Your task to perform on an android device: Add "razer blade" to the cart on walmart.com Image 0: 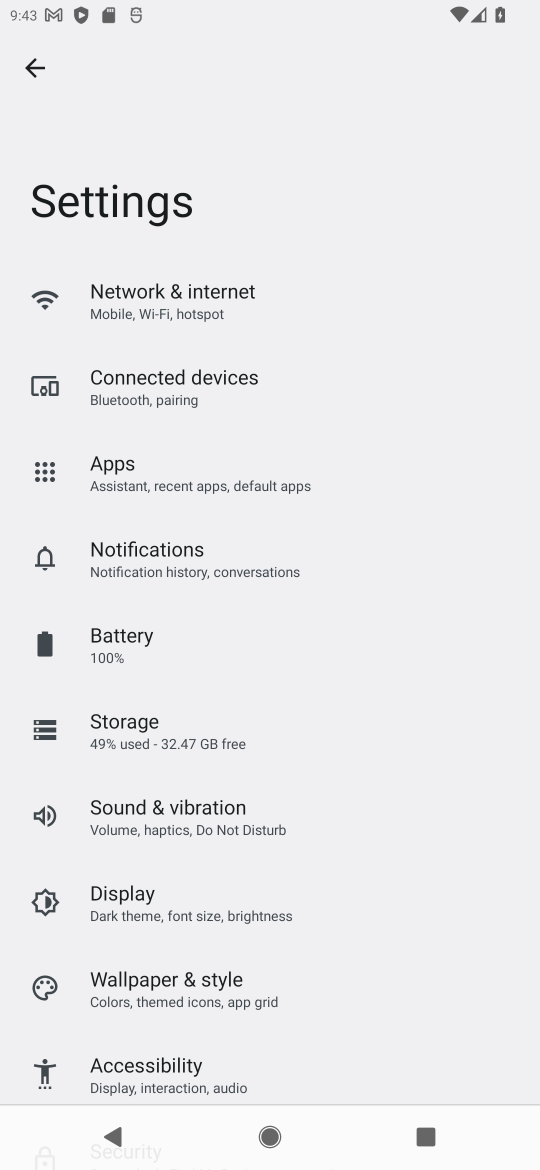
Step 0: press home button
Your task to perform on an android device: Add "razer blade" to the cart on walmart.com Image 1: 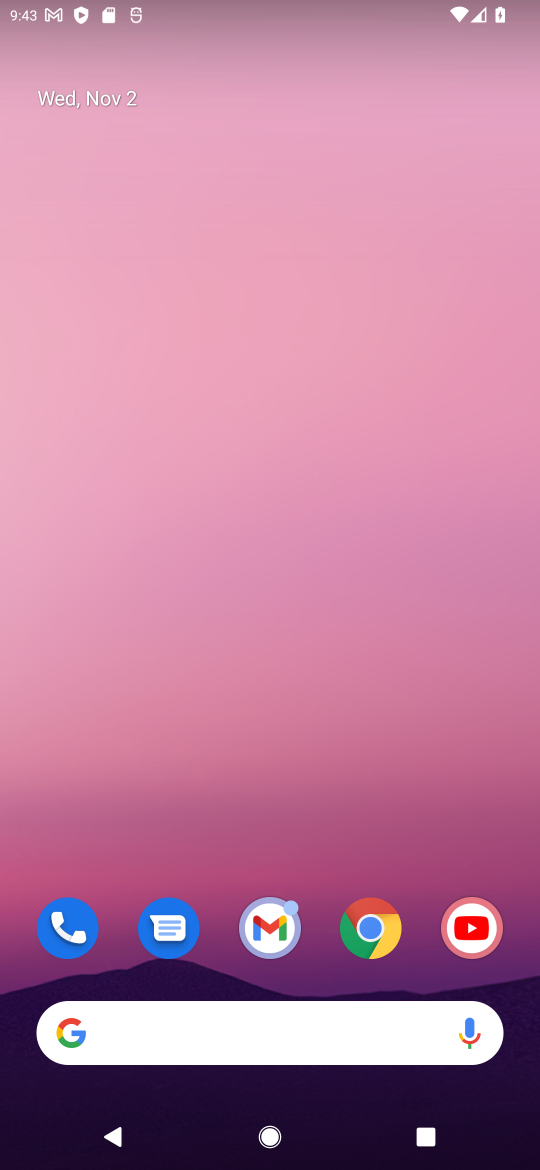
Step 1: drag from (239, 822) to (280, 305)
Your task to perform on an android device: Add "razer blade" to the cart on walmart.com Image 2: 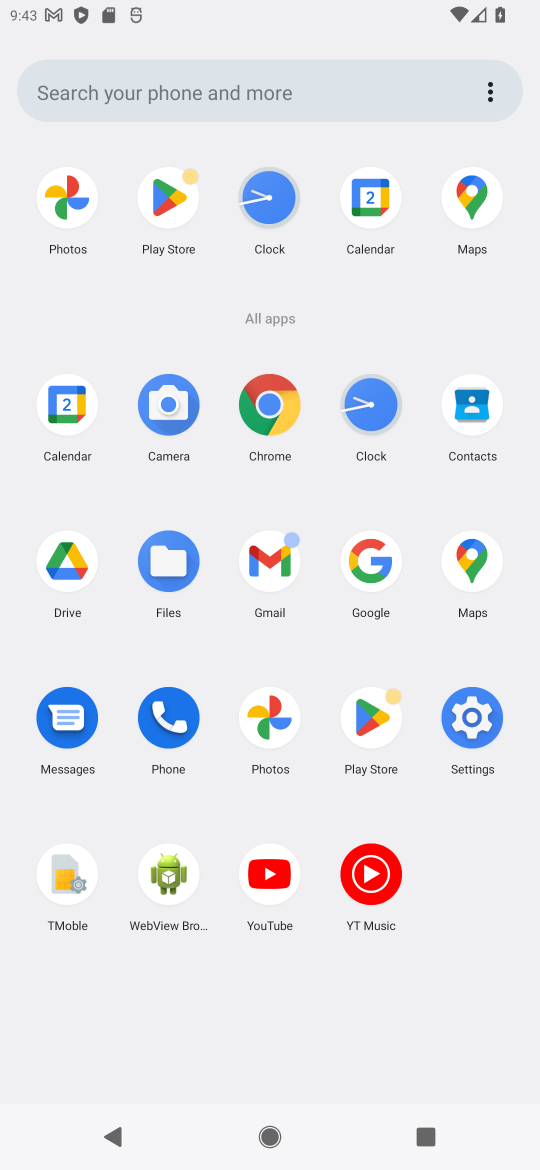
Step 2: click (364, 548)
Your task to perform on an android device: Add "razer blade" to the cart on walmart.com Image 3: 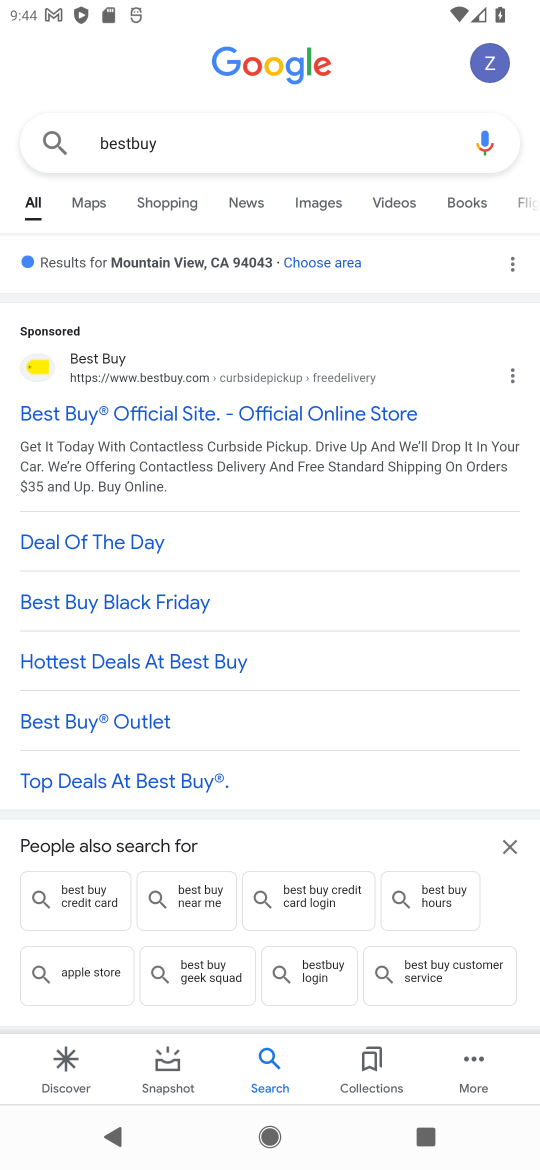
Step 3: click (131, 131)
Your task to perform on an android device: Add "razer blade" to the cart on walmart.com Image 4: 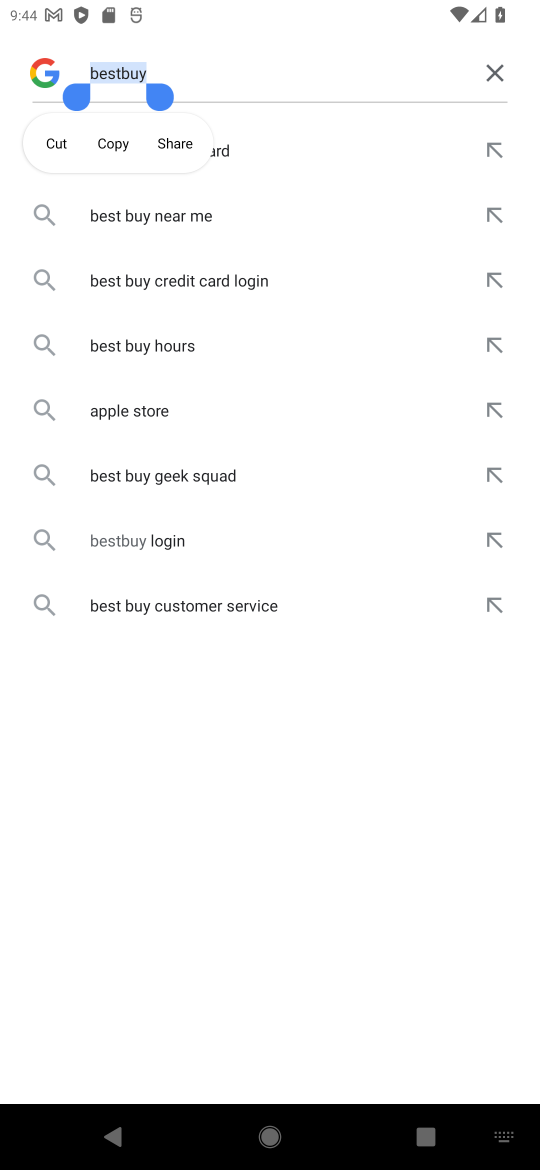
Step 4: click (498, 73)
Your task to perform on an android device: Add "razer blade" to the cart on walmart.com Image 5: 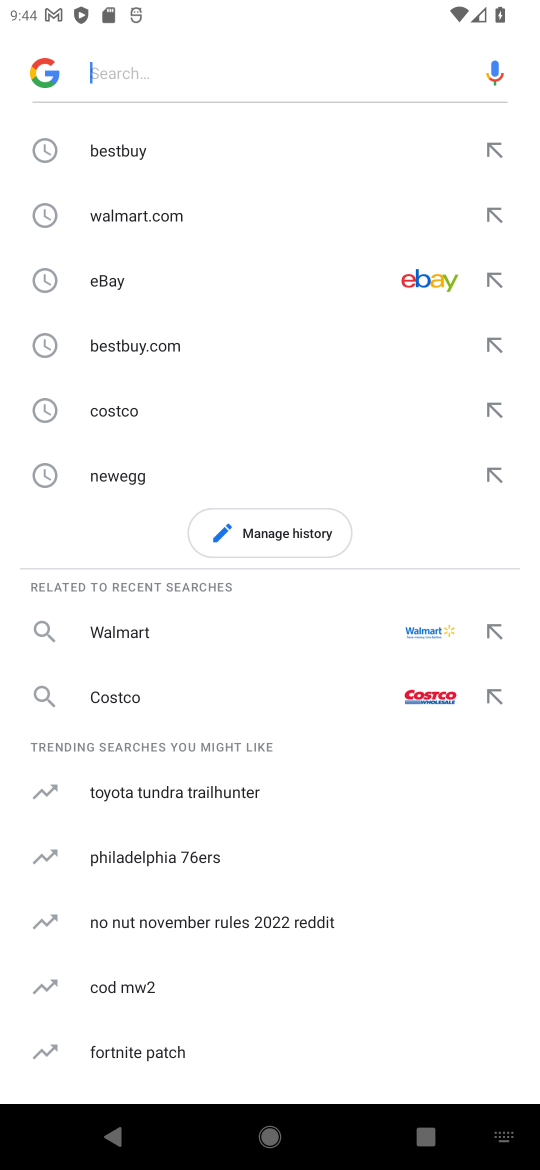
Step 5: click (143, 211)
Your task to perform on an android device: Add "razer blade" to the cart on walmart.com Image 6: 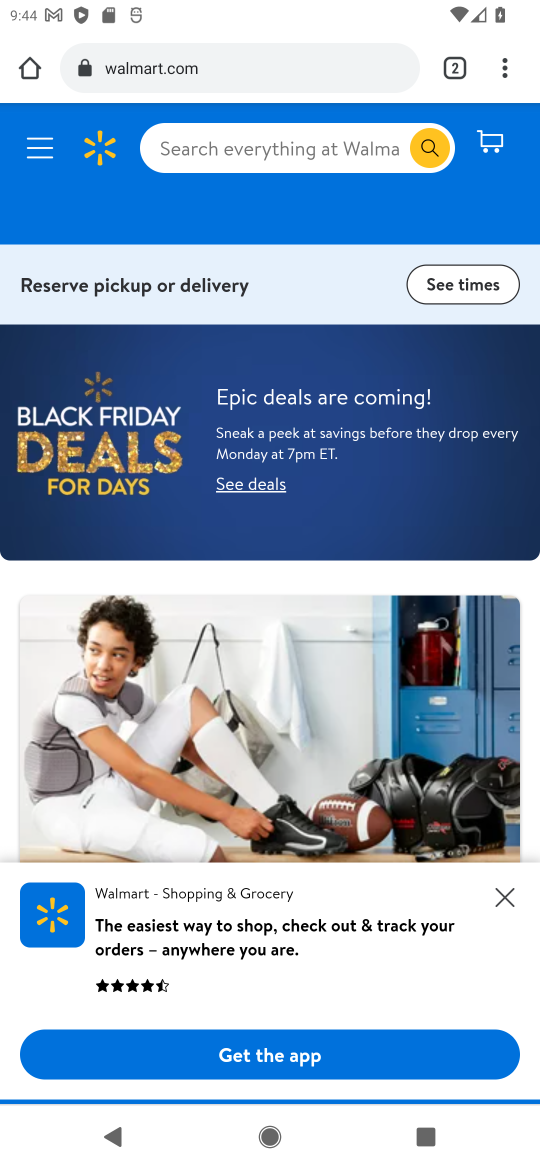
Step 6: click (251, 150)
Your task to perform on an android device: Add "razer blade" to the cart on walmart.com Image 7: 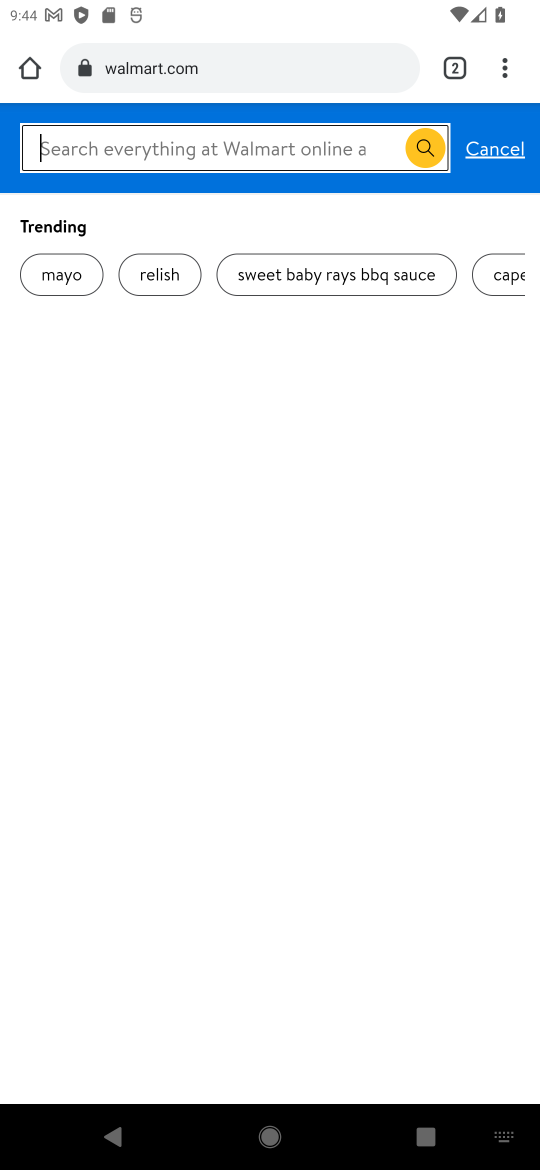
Step 7: type "razer blade"
Your task to perform on an android device: Add "razer blade" to the cart on walmart.com Image 8: 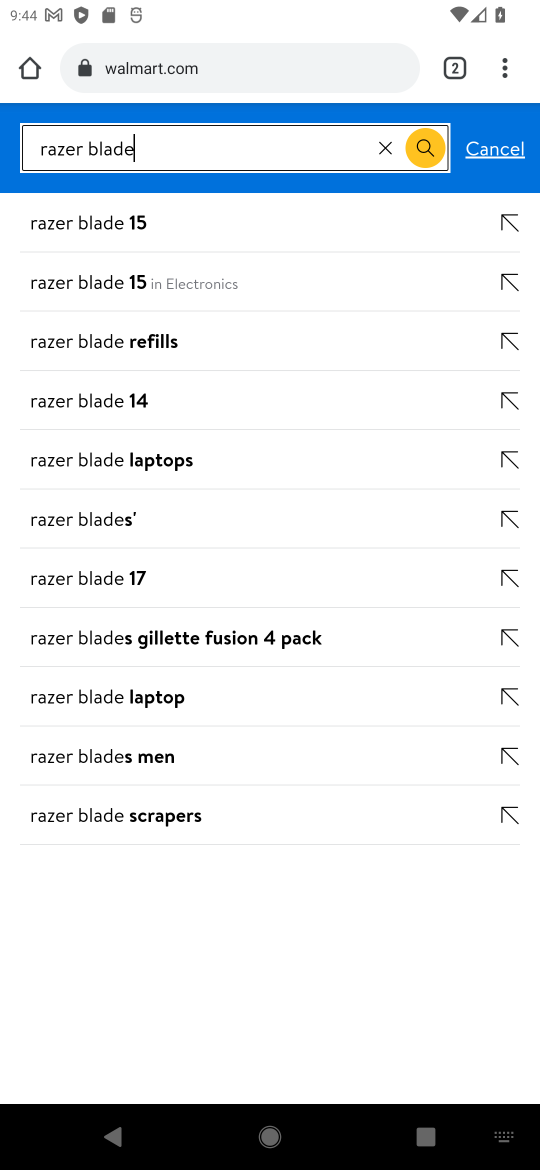
Step 8: click (60, 222)
Your task to perform on an android device: Add "razer blade" to the cart on walmart.com Image 9: 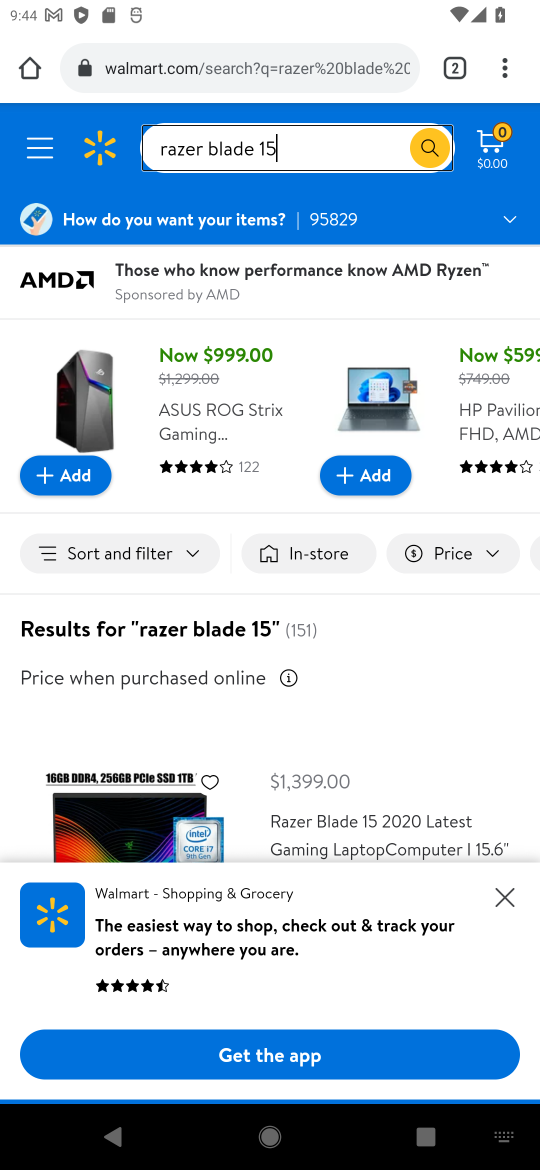
Step 9: drag from (199, 672) to (230, 223)
Your task to perform on an android device: Add "razer blade" to the cart on walmart.com Image 10: 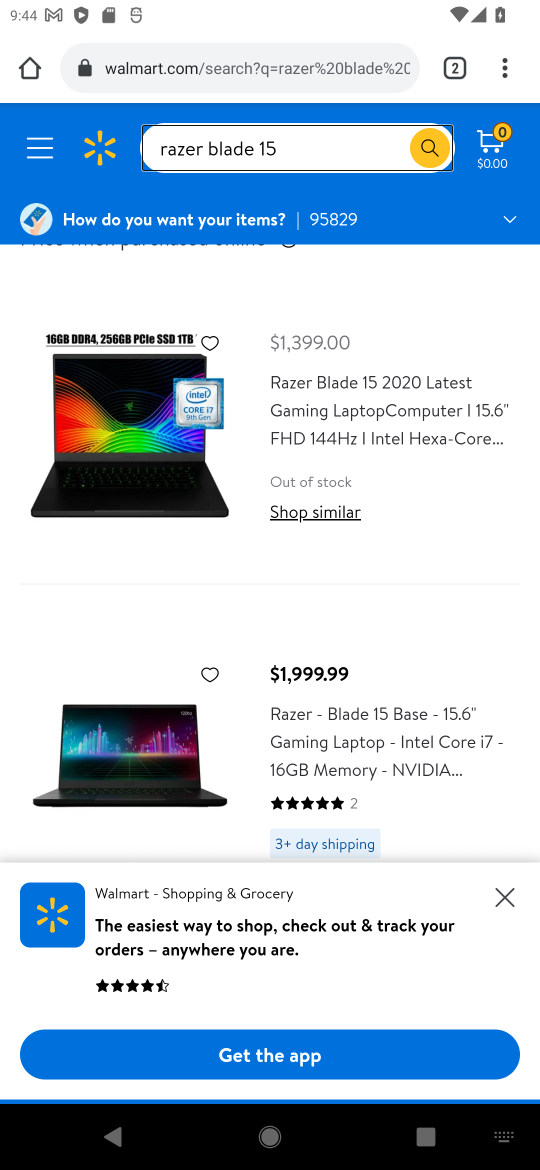
Step 10: click (171, 454)
Your task to perform on an android device: Add "razer blade" to the cart on walmart.com Image 11: 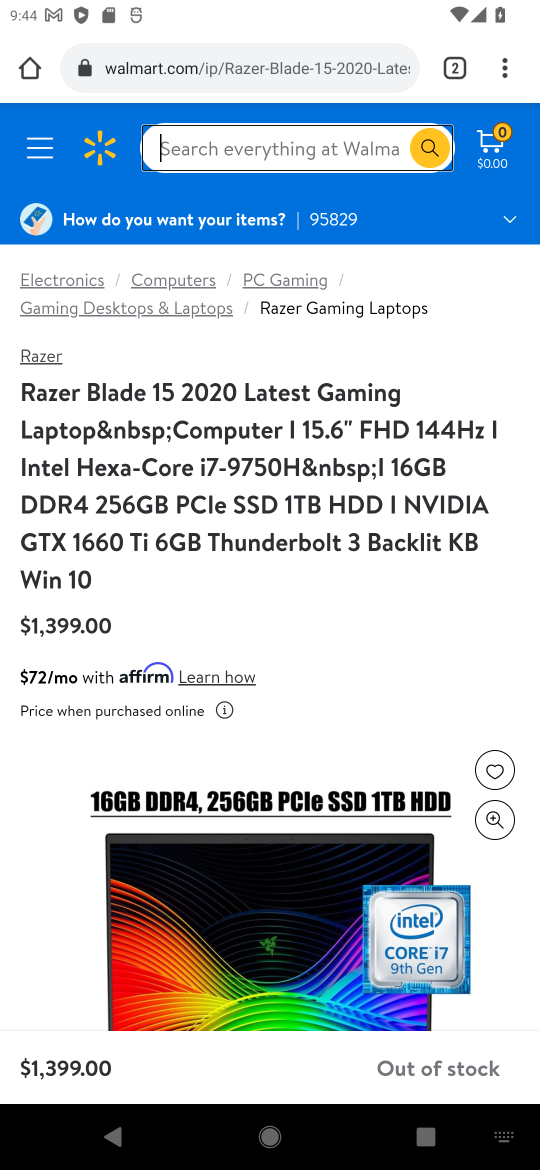
Step 11: drag from (201, 772) to (211, 460)
Your task to perform on an android device: Add "razer blade" to the cart on walmart.com Image 12: 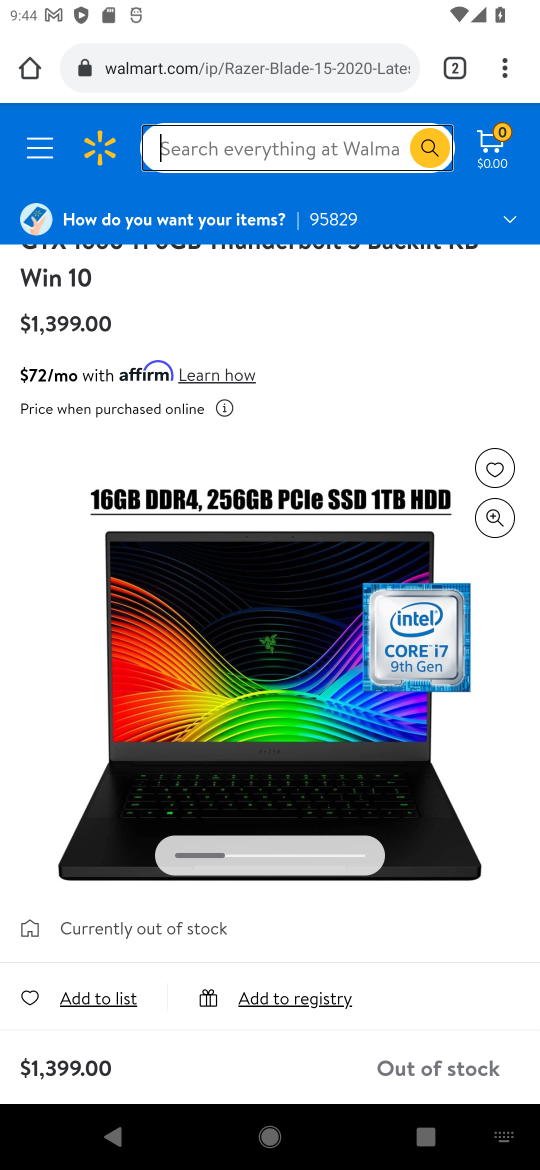
Step 12: drag from (141, 847) to (174, 441)
Your task to perform on an android device: Add "razer blade" to the cart on walmart.com Image 13: 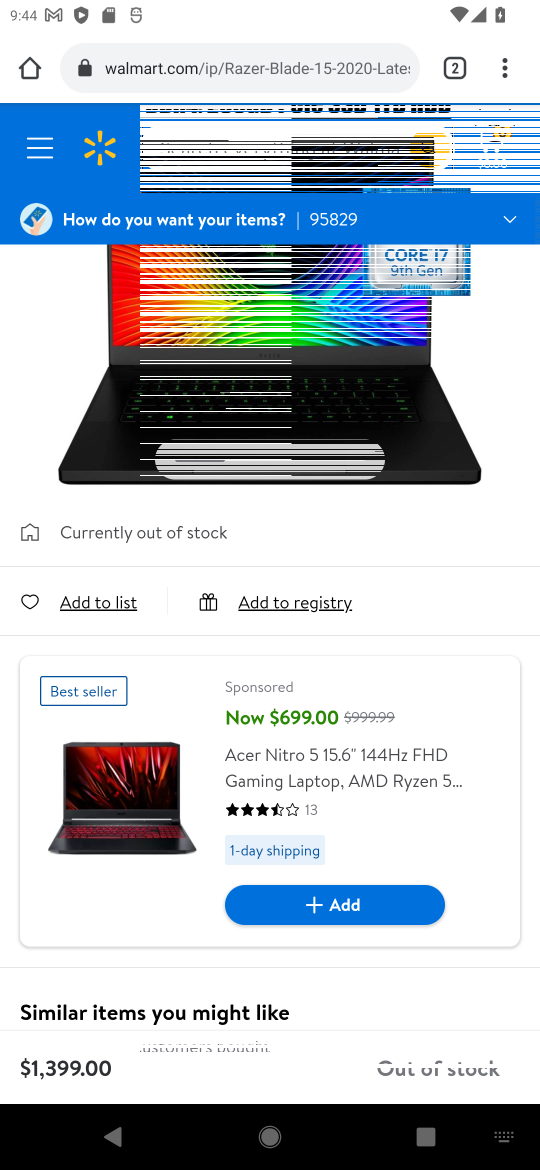
Step 13: click (351, 908)
Your task to perform on an android device: Add "razer blade" to the cart on walmart.com Image 14: 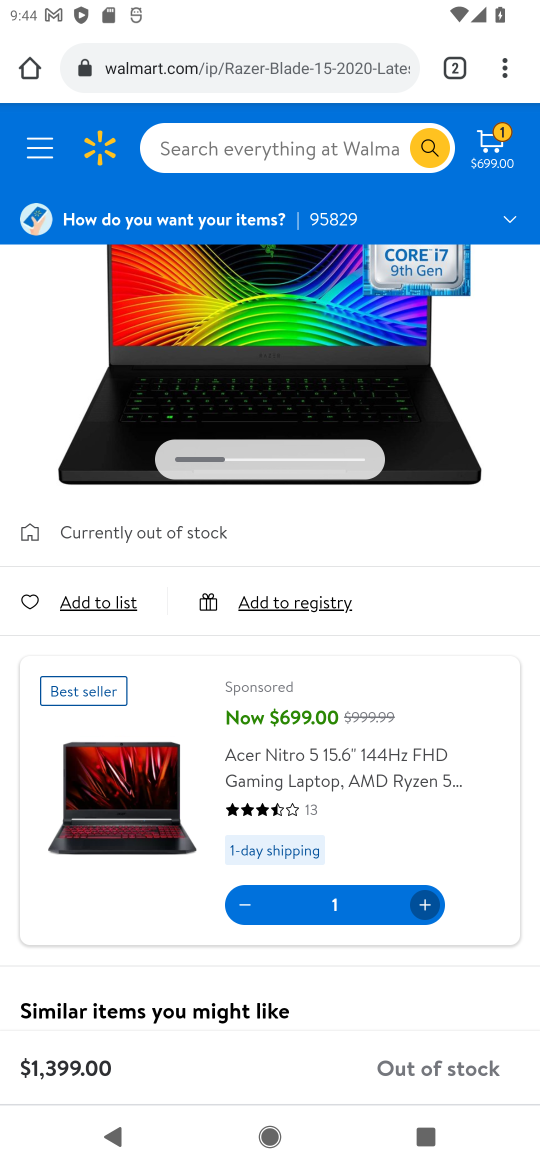
Step 14: task complete